Your task to perform on an android device: When is my next meeting? Image 0: 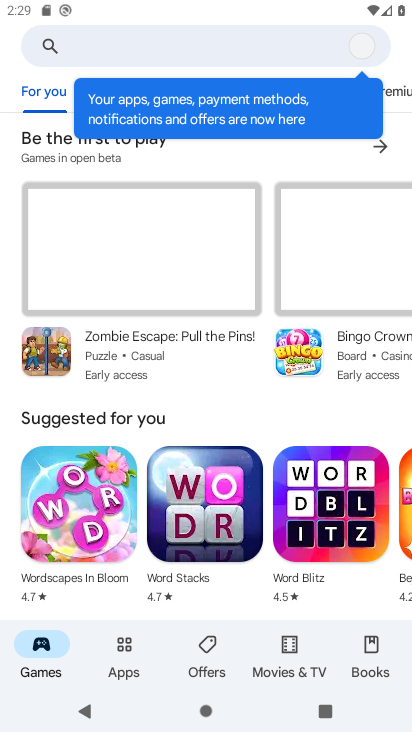
Step 0: press home button
Your task to perform on an android device: When is my next meeting? Image 1: 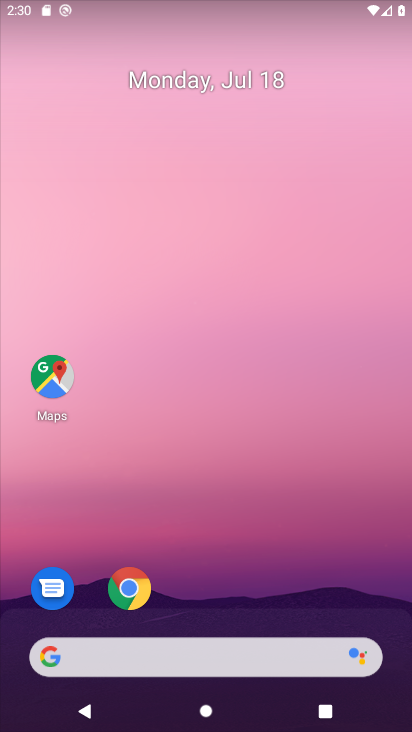
Step 1: drag from (386, 622) to (296, 210)
Your task to perform on an android device: When is my next meeting? Image 2: 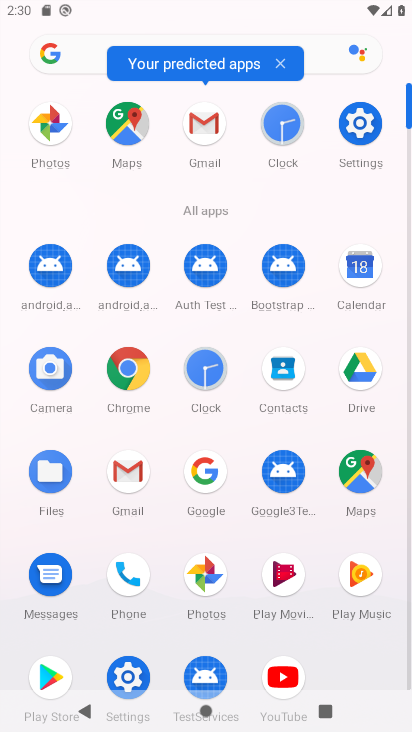
Step 2: click (371, 266)
Your task to perform on an android device: When is my next meeting? Image 3: 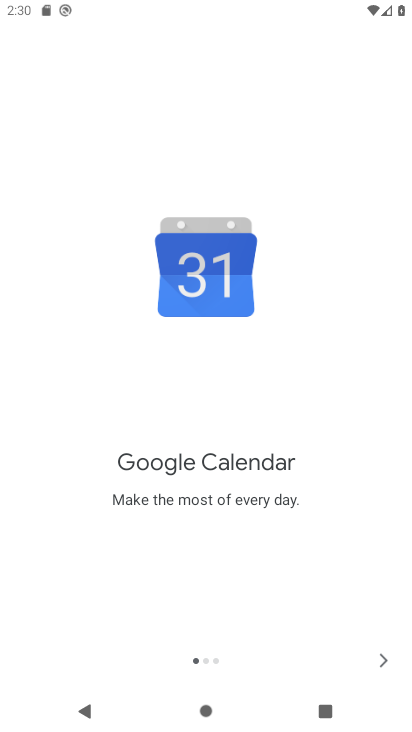
Step 3: click (384, 662)
Your task to perform on an android device: When is my next meeting? Image 4: 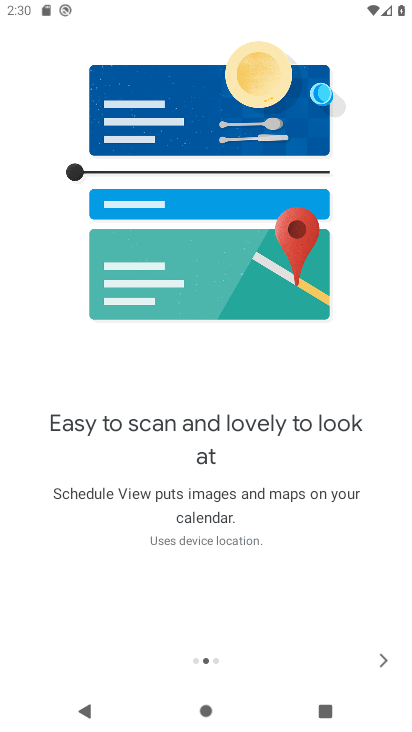
Step 4: click (388, 658)
Your task to perform on an android device: When is my next meeting? Image 5: 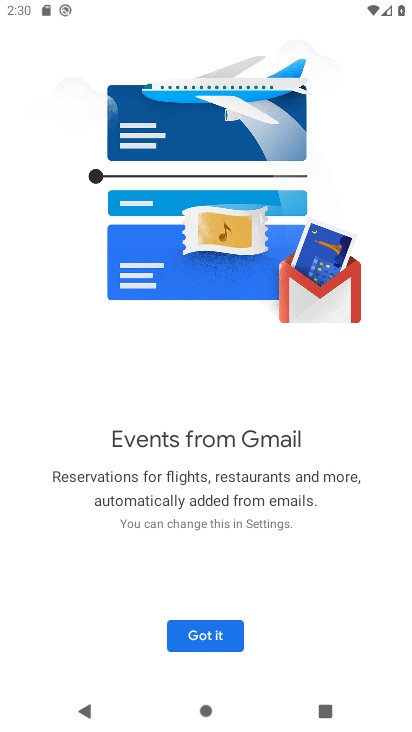
Step 5: click (218, 639)
Your task to perform on an android device: When is my next meeting? Image 6: 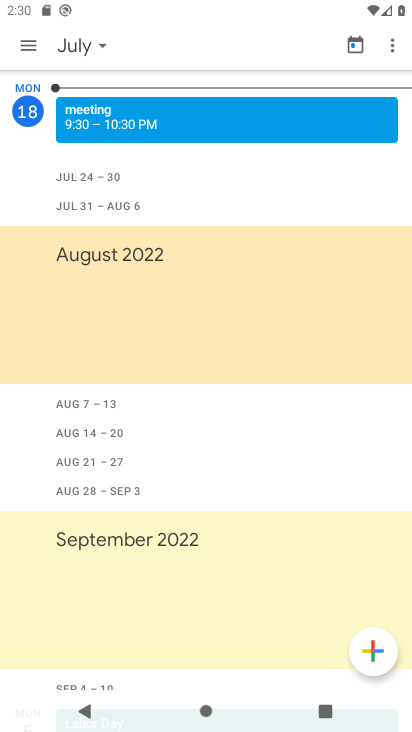
Step 6: click (33, 53)
Your task to perform on an android device: When is my next meeting? Image 7: 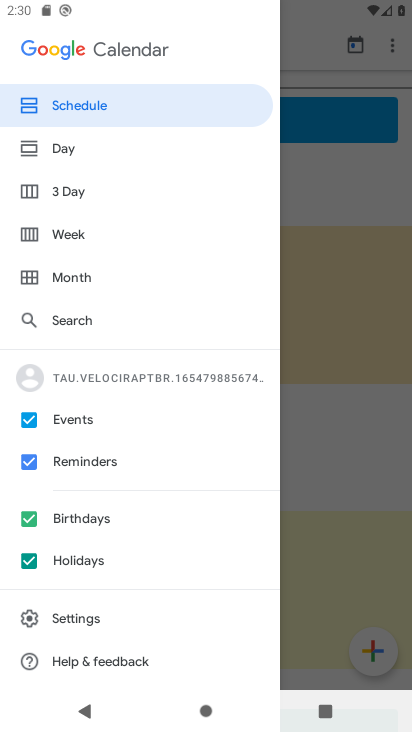
Step 7: click (110, 111)
Your task to perform on an android device: When is my next meeting? Image 8: 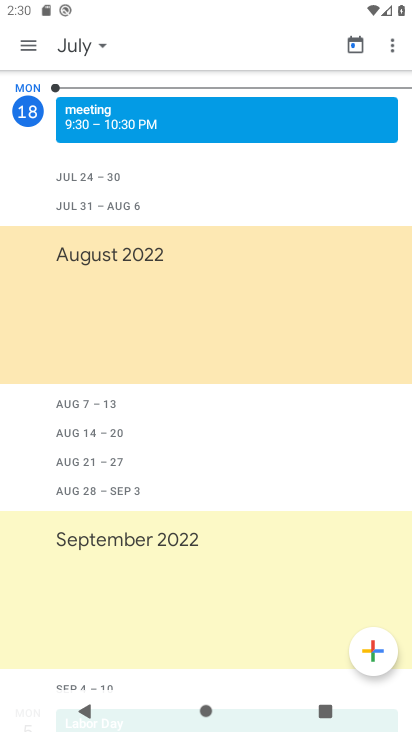
Step 8: task complete